Your task to perform on an android device: Go to Google maps Image 0: 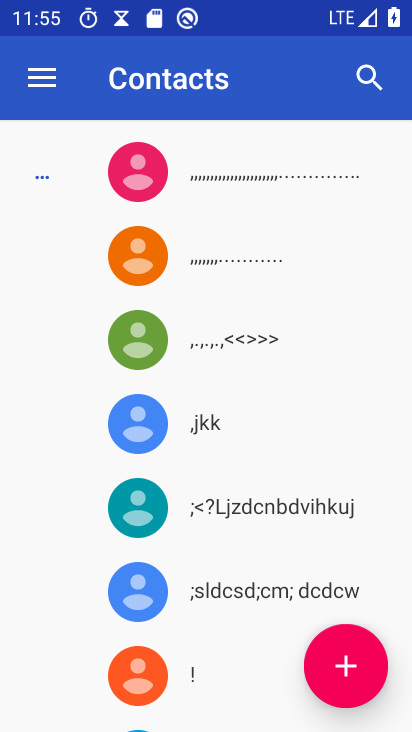
Step 0: press home button
Your task to perform on an android device: Go to Google maps Image 1: 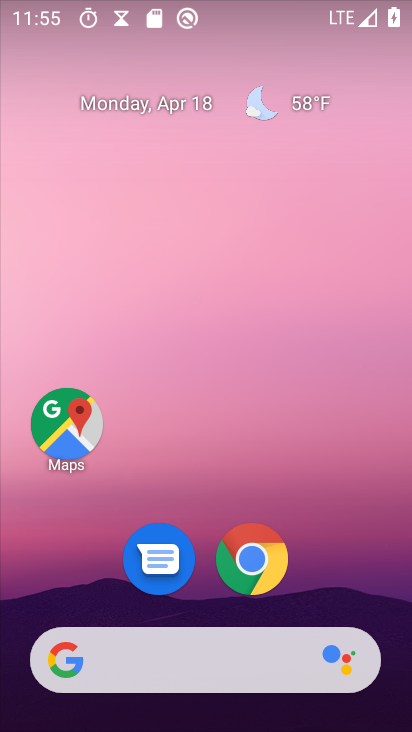
Step 1: click (31, 433)
Your task to perform on an android device: Go to Google maps Image 2: 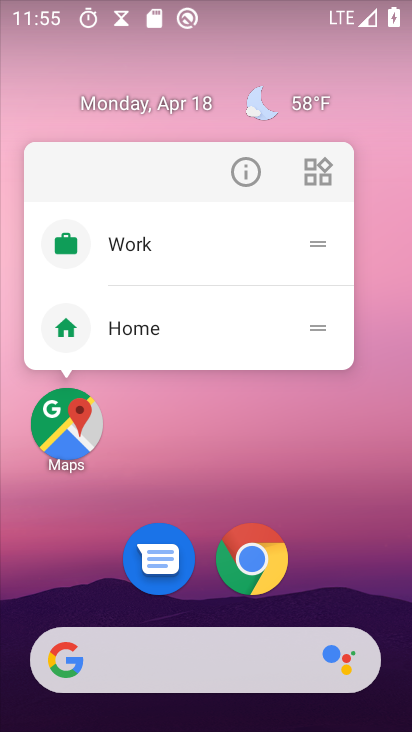
Step 2: click (252, 180)
Your task to perform on an android device: Go to Google maps Image 3: 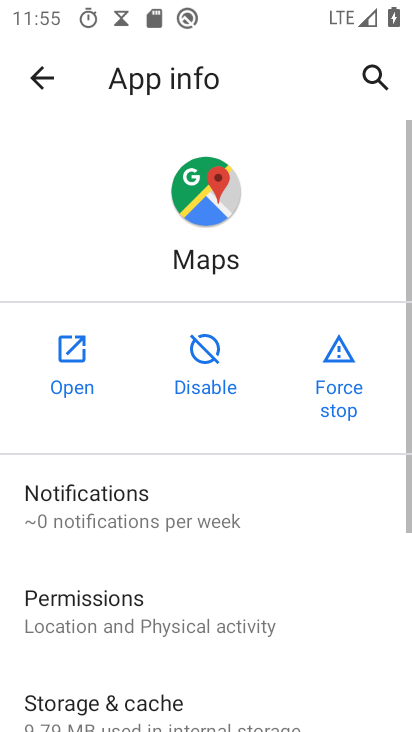
Step 3: click (74, 356)
Your task to perform on an android device: Go to Google maps Image 4: 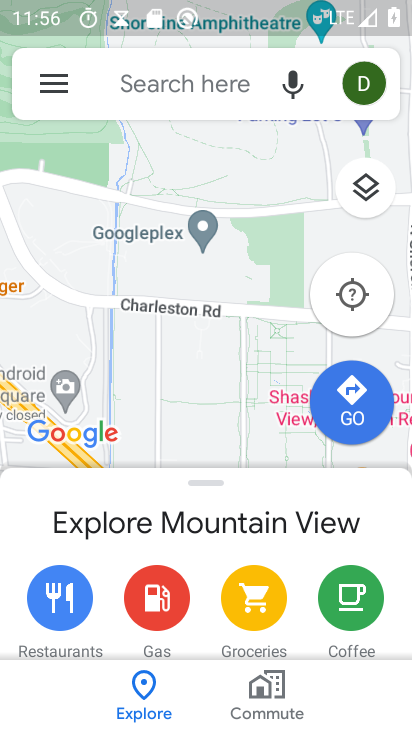
Step 4: task complete